Your task to perform on an android device: allow notifications from all sites in the chrome app Image 0: 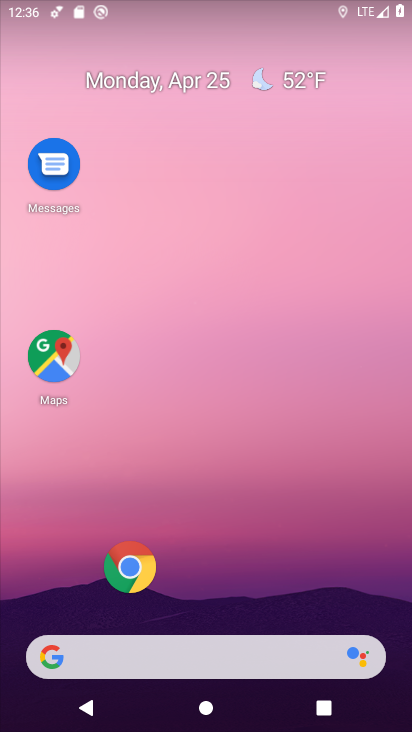
Step 0: drag from (275, 316) to (316, 114)
Your task to perform on an android device: allow notifications from all sites in the chrome app Image 1: 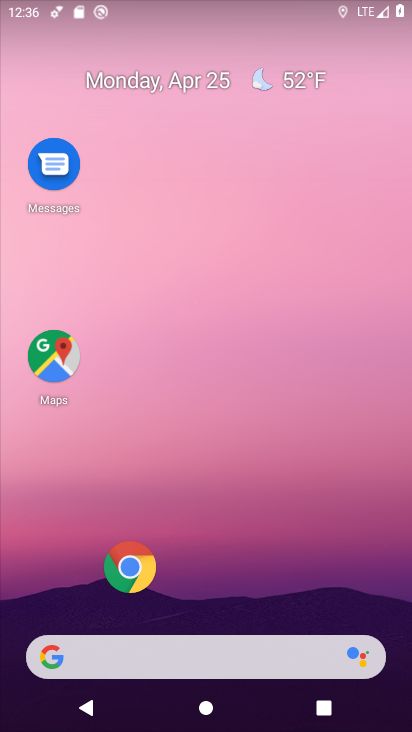
Step 1: drag from (251, 636) to (333, 58)
Your task to perform on an android device: allow notifications from all sites in the chrome app Image 2: 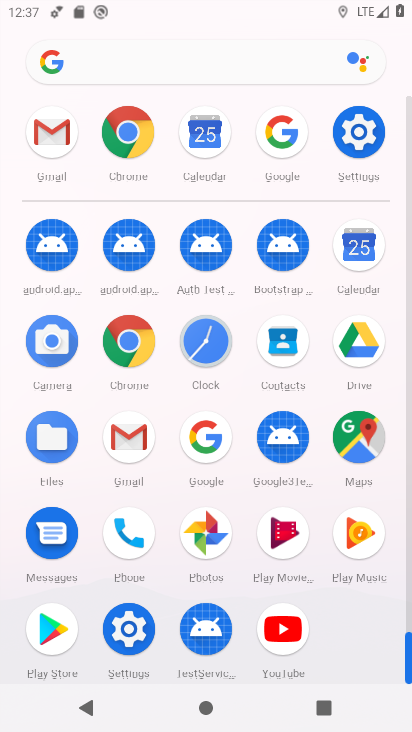
Step 2: click (124, 152)
Your task to perform on an android device: allow notifications from all sites in the chrome app Image 3: 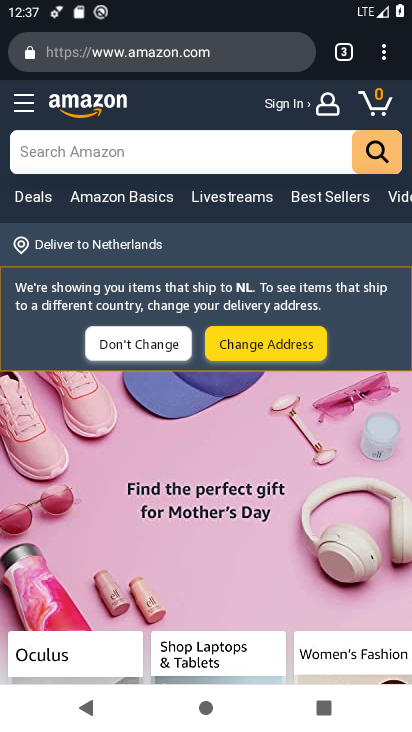
Step 3: click (380, 62)
Your task to perform on an android device: allow notifications from all sites in the chrome app Image 4: 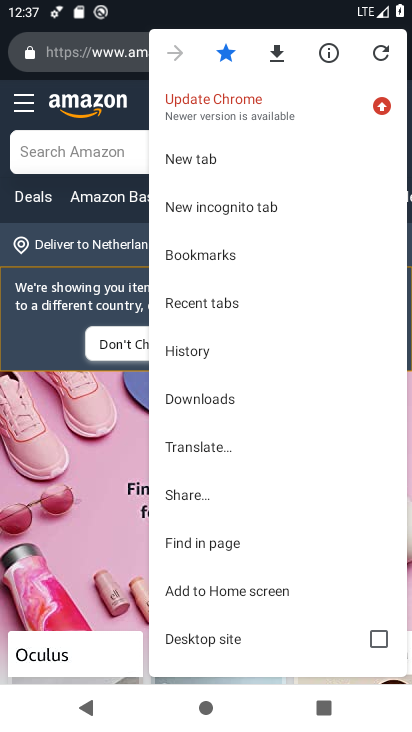
Step 4: drag from (241, 502) to (256, 363)
Your task to perform on an android device: allow notifications from all sites in the chrome app Image 5: 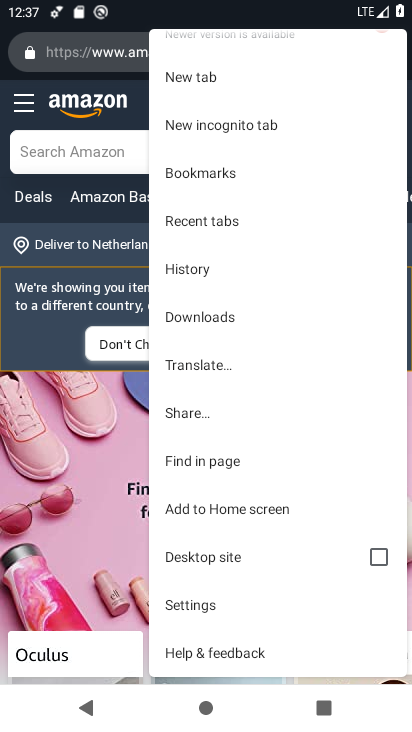
Step 5: click (220, 606)
Your task to perform on an android device: allow notifications from all sites in the chrome app Image 6: 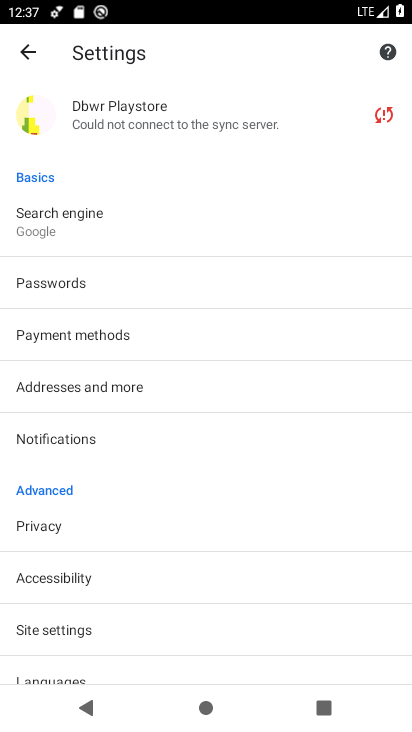
Step 6: click (145, 449)
Your task to perform on an android device: allow notifications from all sites in the chrome app Image 7: 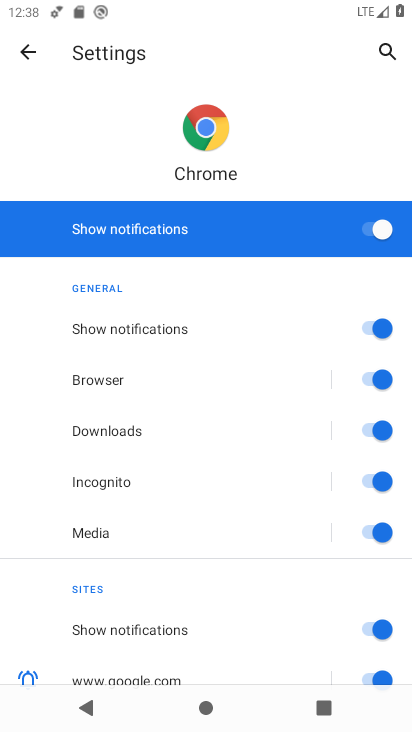
Step 7: task complete